Your task to perform on an android device: change timer sound Image 0: 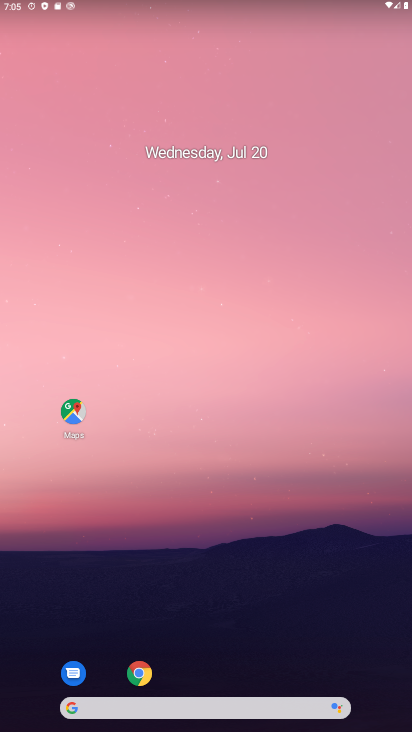
Step 0: drag from (356, 631) to (156, 10)
Your task to perform on an android device: change timer sound Image 1: 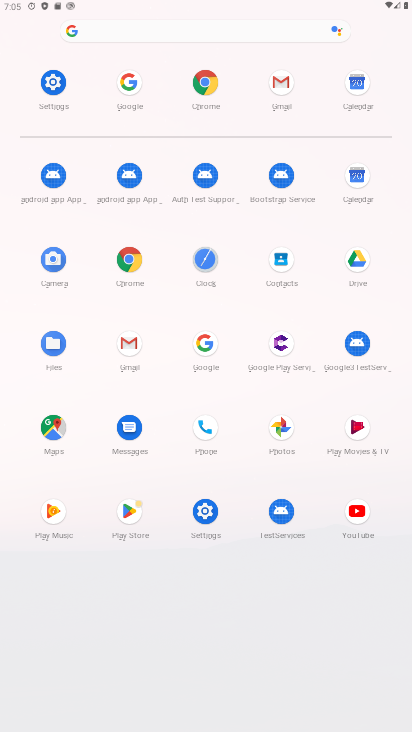
Step 1: click (206, 269)
Your task to perform on an android device: change timer sound Image 2: 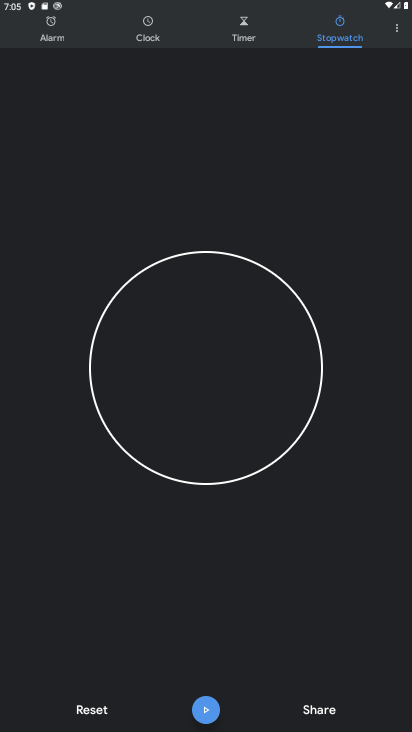
Step 2: click (397, 25)
Your task to perform on an android device: change timer sound Image 3: 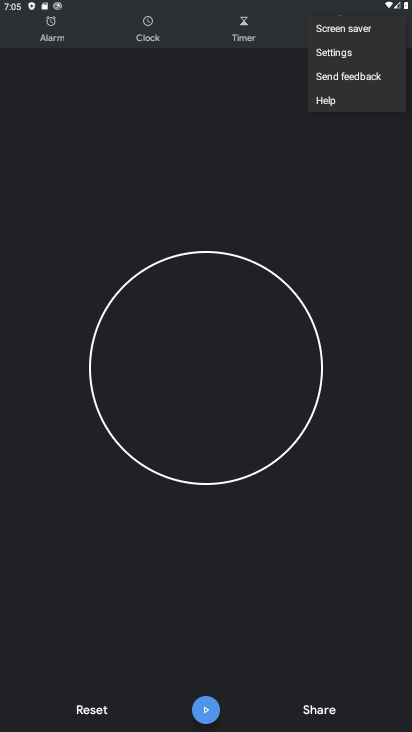
Step 3: click (343, 49)
Your task to perform on an android device: change timer sound Image 4: 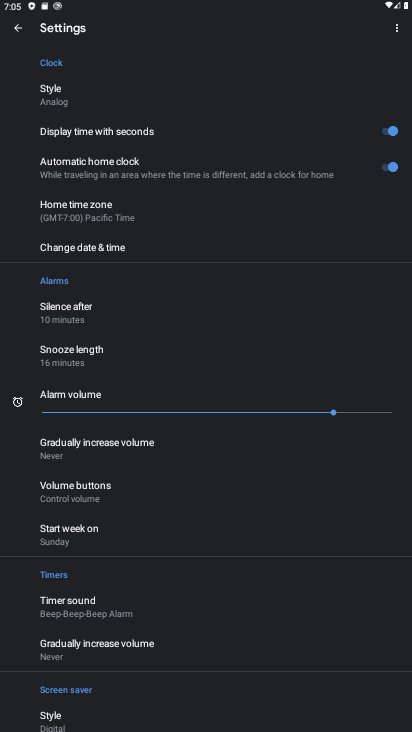
Step 4: click (77, 600)
Your task to perform on an android device: change timer sound Image 5: 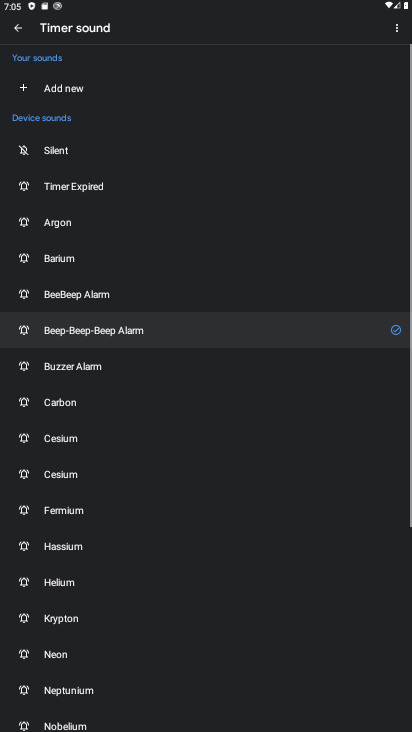
Step 5: click (74, 374)
Your task to perform on an android device: change timer sound Image 6: 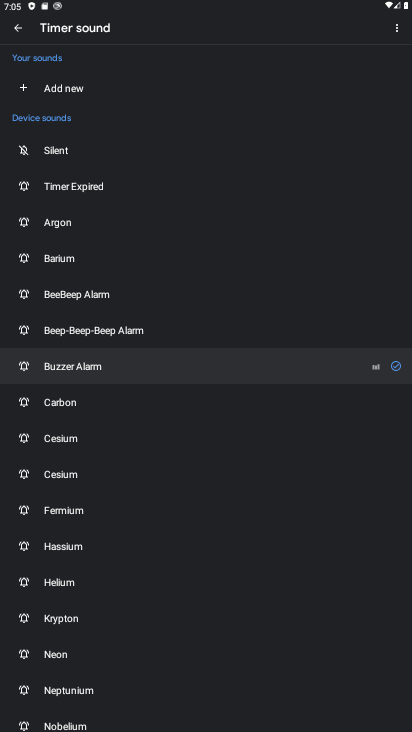
Step 6: task complete